Your task to perform on an android device: Search for "alienware aurora" on ebay.com, select the first entry, and add it to the cart. Image 0: 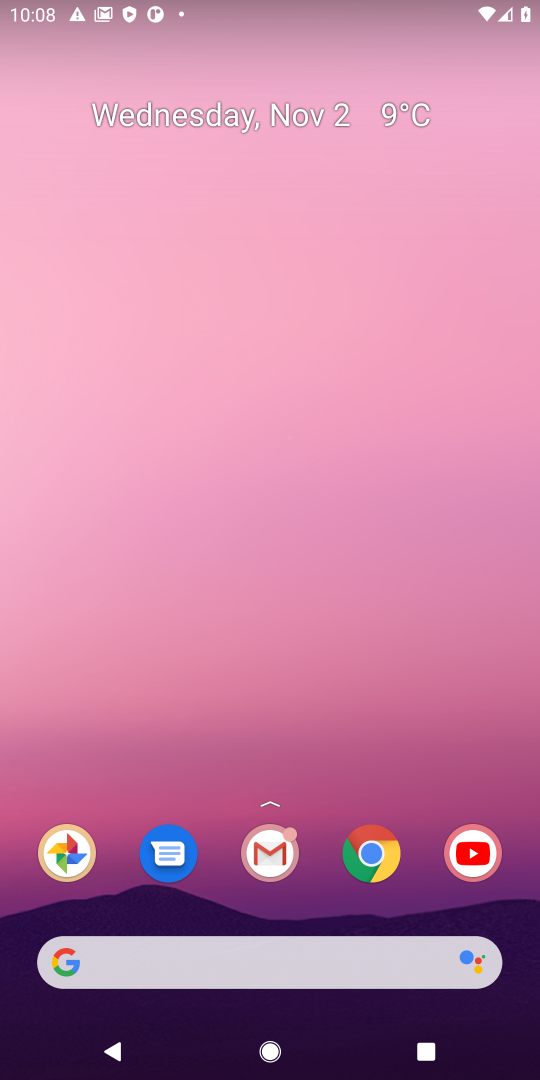
Step 0: click (364, 854)
Your task to perform on an android device: Search for "alienware aurora" on ebay.com, select the first entry, and add it to the cart. Image 1: 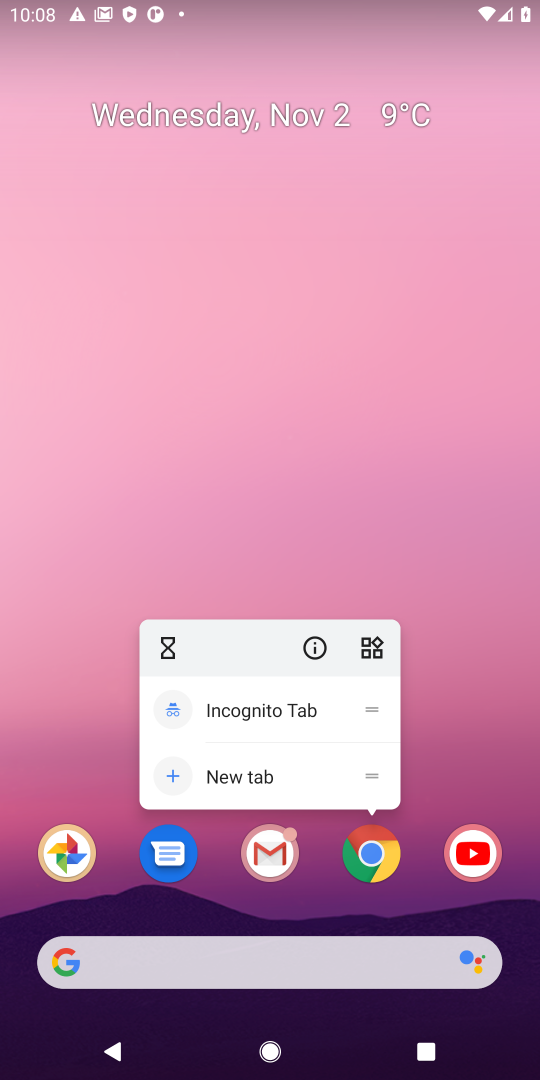
Step 1: click (379, 855)
Your task to perform on an android device: Search for "alienware aurora" on ebay.com, select the first entry, and add it to the cart. Image 2: 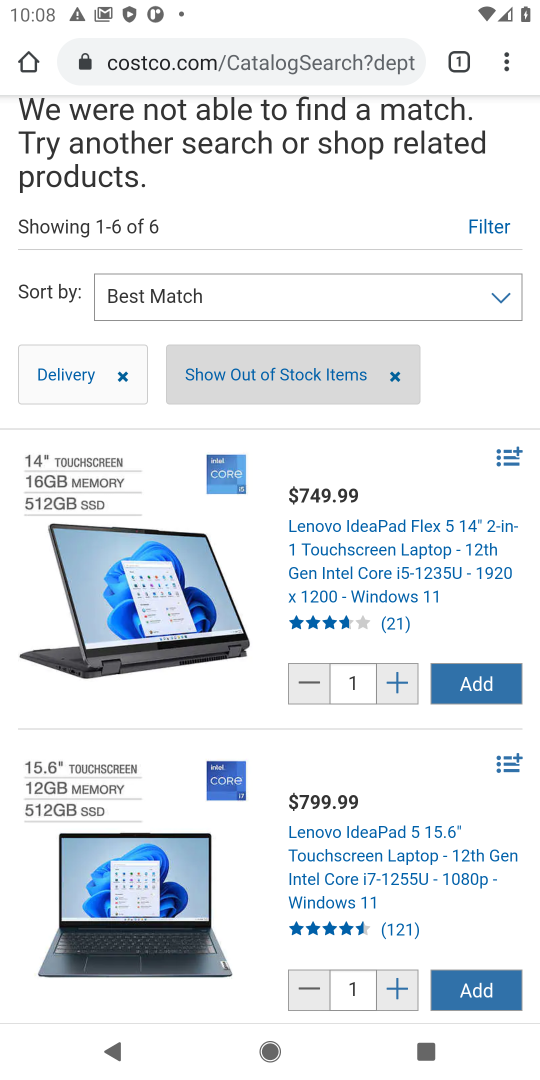
Step 2: click (254, 65)
Your task to perform on an android device: Search for "alienware aurora" on ebay.com, select the first entry, and add it to the cart. Image 3: 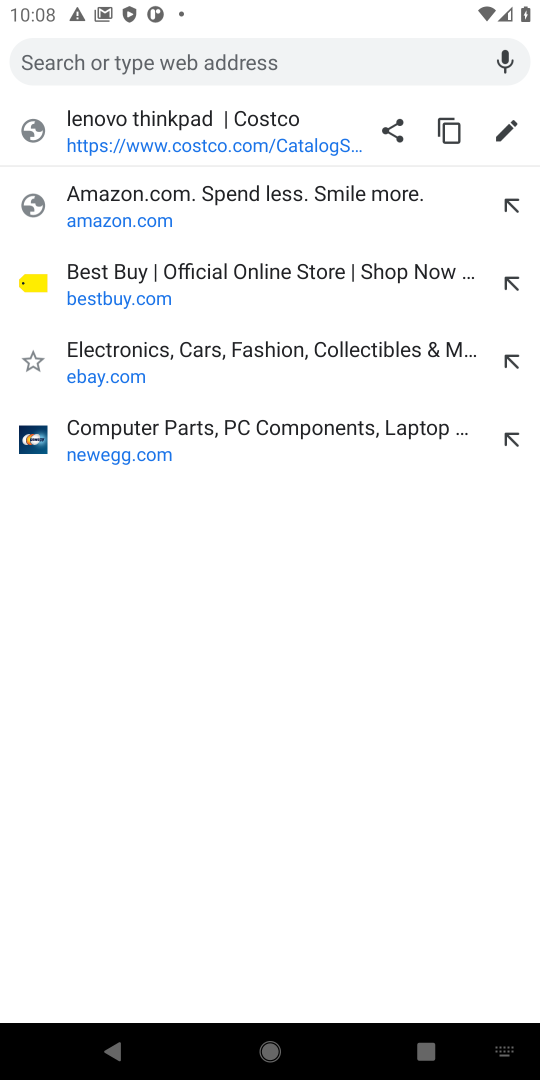
Step 3: click (97, 375)
Your task to perform on an android device: Search for "alienware aurora" on ebay.com, select the first entry, and add it to the cart. Image 4: 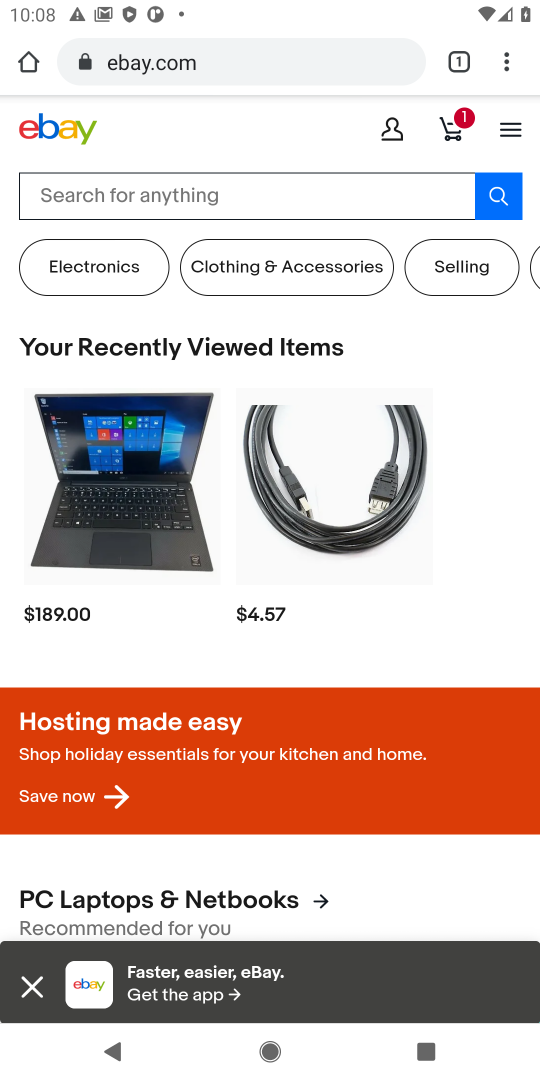
Step 4: click (106, 182)
Your task to perform on an android device: Search for "alienware aurora" on ebay.com, select the first entry, and add it to the cart. Image 5: 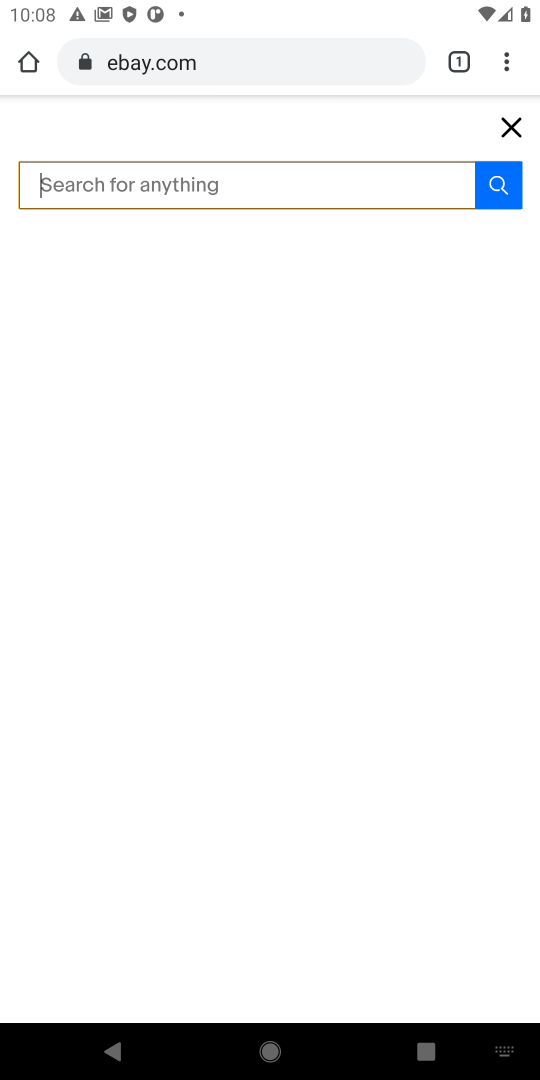
Step 5: type "alienware aurora"
Your task to perform on an android device: Search for "alienware aurora" on ebay.com, select the first entry, and add it to the cart. Image 6: 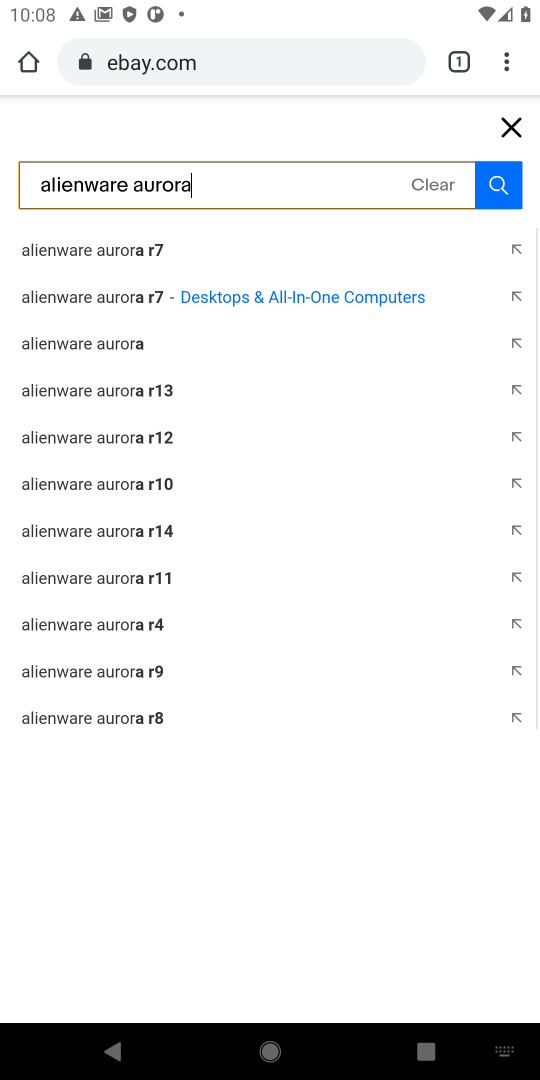
Step 6: press enter
Your task to perform on an android device: Search for "alienware aurora" on ebay.com, select the first entry, and add it to the cart. Image 7: 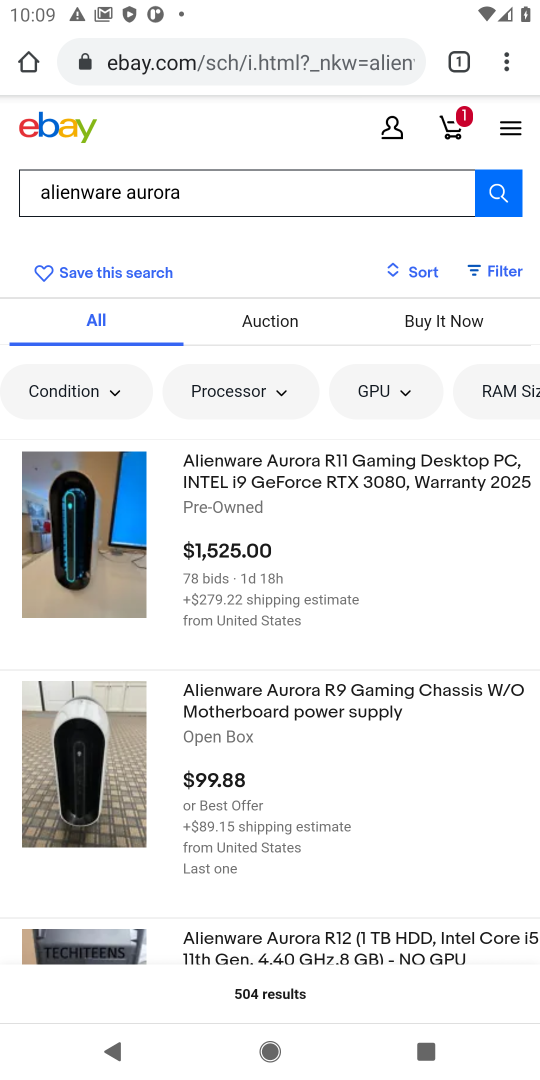
Step 7: click (318, 501)
Your task to perform on an android device: Search for "alienware aurora" on ebay.com, select the first entry, and add it to the cart. Image 8: 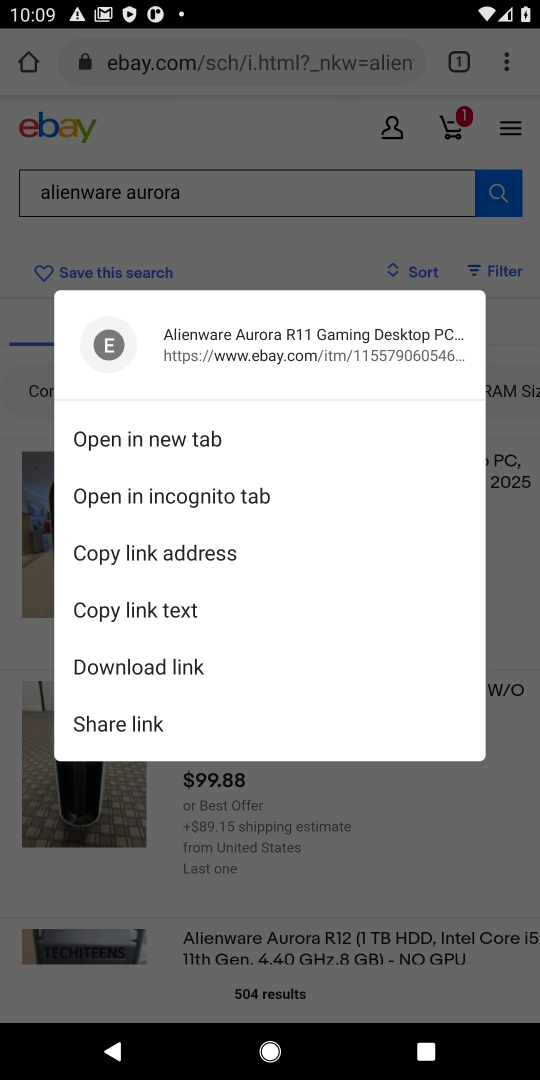
Step 8: click (503, 471)
Your task to perform on an android device: Search for "alienware aurora" on ebay.com, select the first entry, and add it to the cart. Image 9: 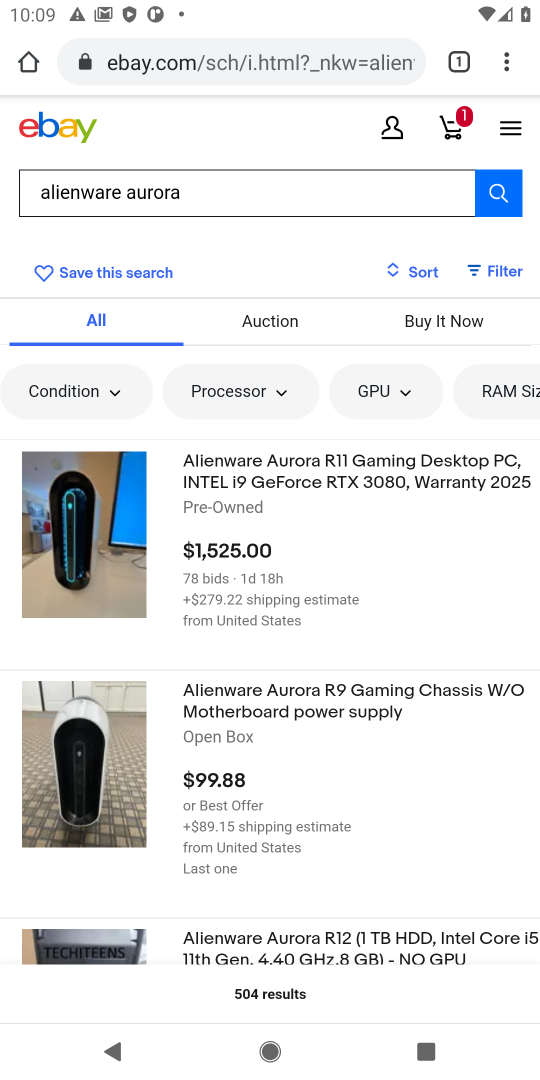
Step 9: click (194, 484)
Your task to perform on an android device: Search for "alienware aurora" on ebay.com, select the first entry, and add it to the cart. Image 10: 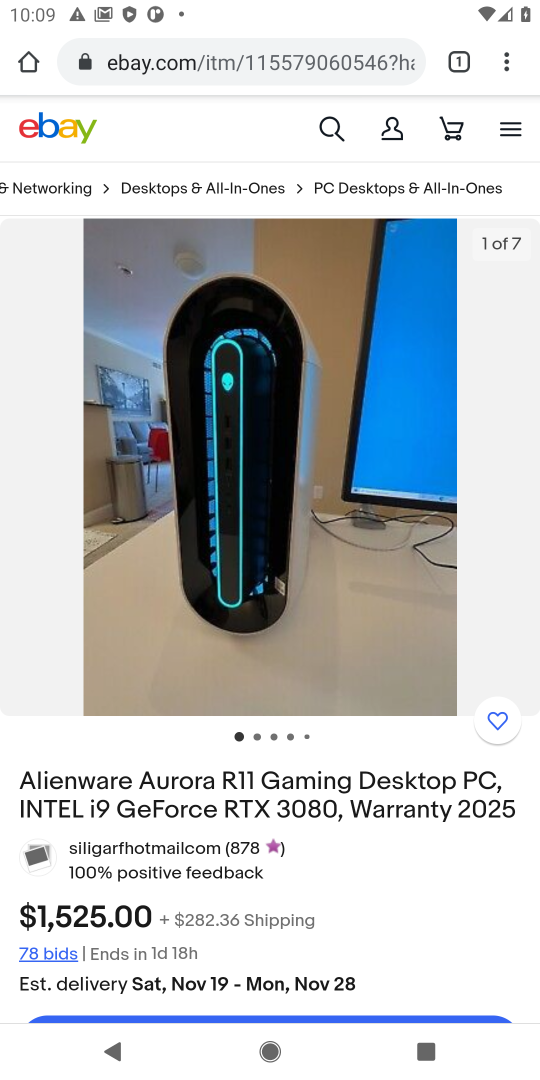
Step 10: task complete